Your task to perform on an android device: set the timer Image 0: 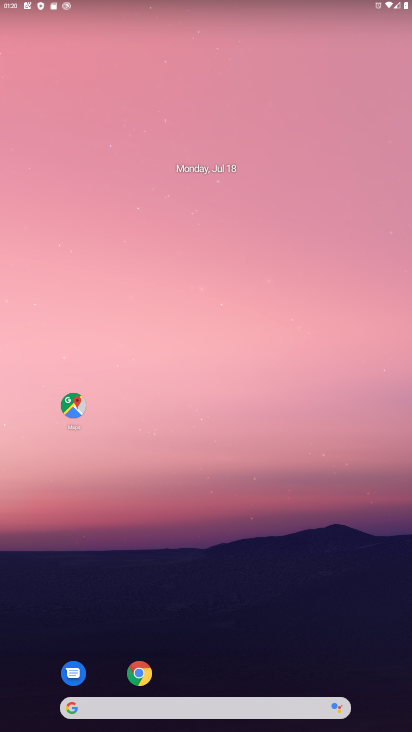
Step 0: drag from (239, 643) to (233, 285)
Your task to perform on an android device: set the timer Image 1: 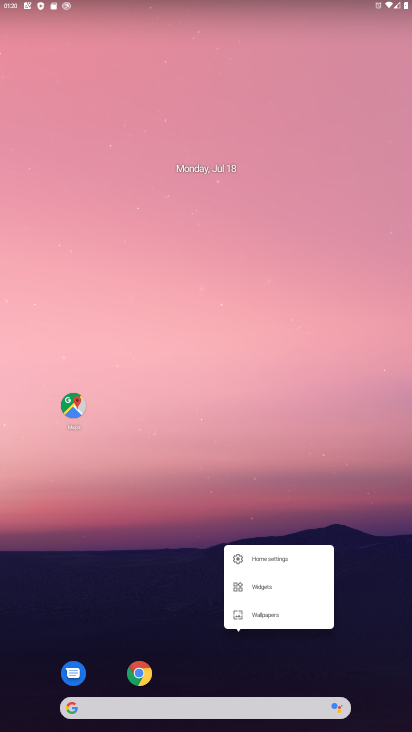
Step 1: click (195, 371)
Your task to perform on an android device: set the timer Image 2: 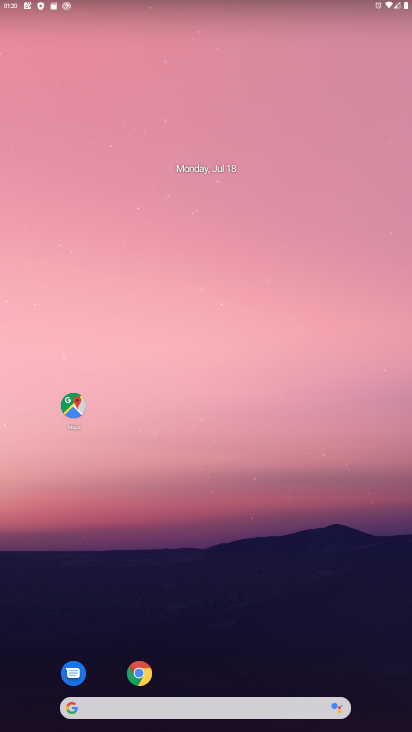
Step 2: drag from (202, 660) to (192, 128)
Your task to perform on an android device: set the timer Image 3: 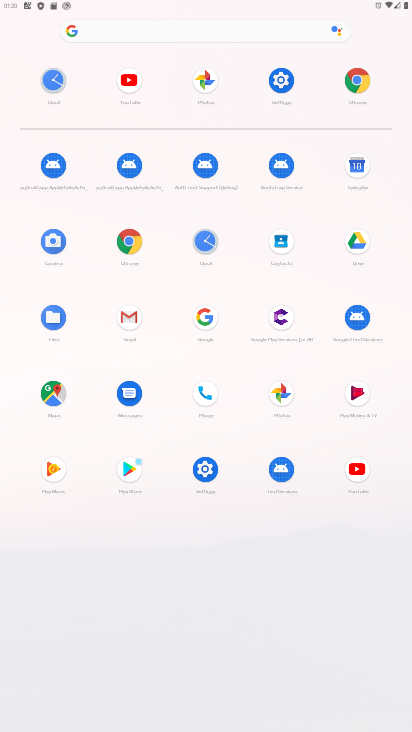
Step 3: click (50, 85)
Your task to perform on an android device: set the timer Image 4: 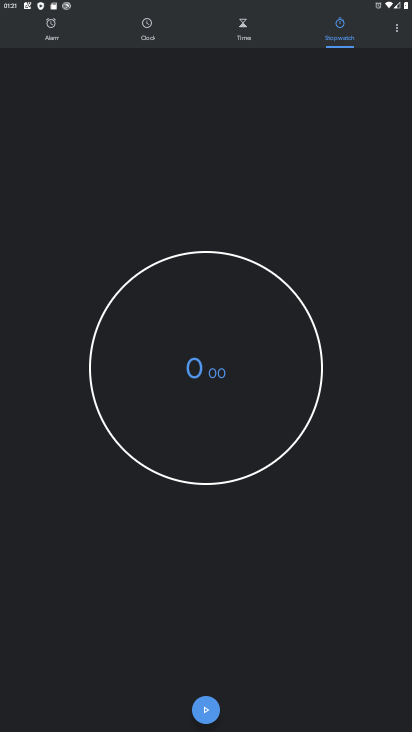
Step 4: click (240, 37)
Your task to perform on an android device: set the timer Image 5: 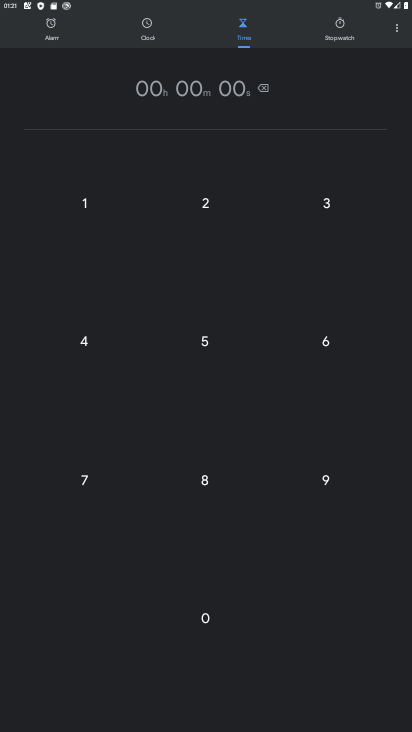
Step 5: task complete